Your task to perform on an android device: What's on my calendar tomorrow? Image 0: 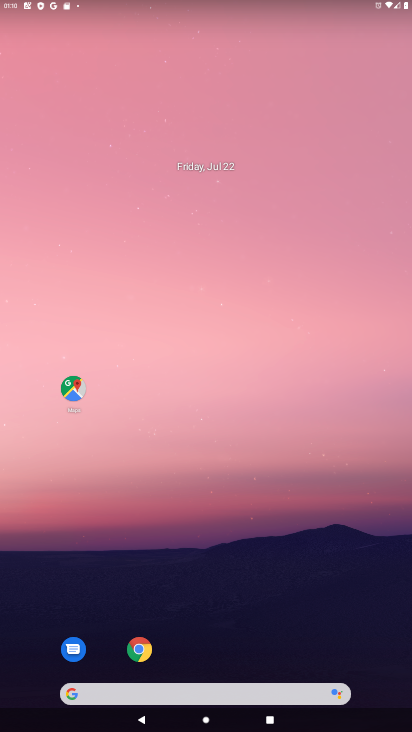
Step 0: drag from (249, 592) to (149, 17)
Your task to perform on an android device: What's on my calendar tomorrow? Image 1: 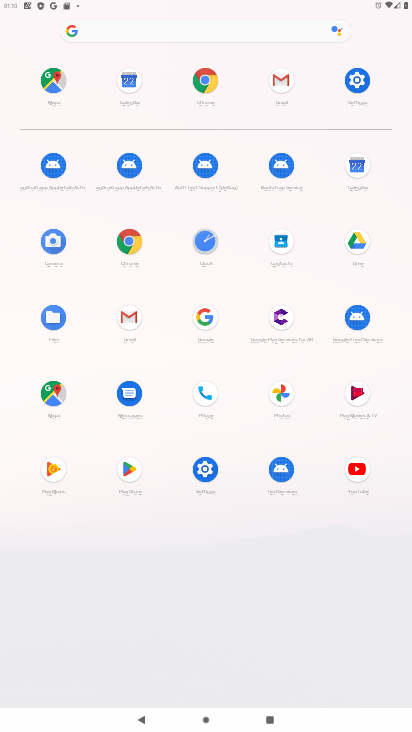
Step 1: click (370, 166)
Your task to perform on an android device: What's on my calendar tomorrow? Image 2: 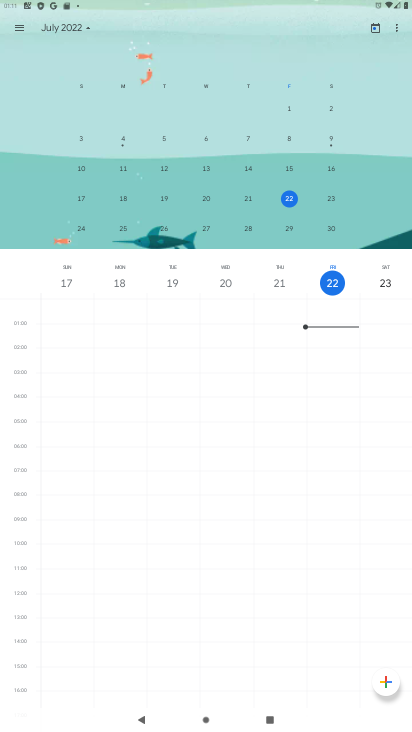
Step 2: click (336, 194)
Your task to perform on an android device: What's on my calendar tomorrow? Image 3: 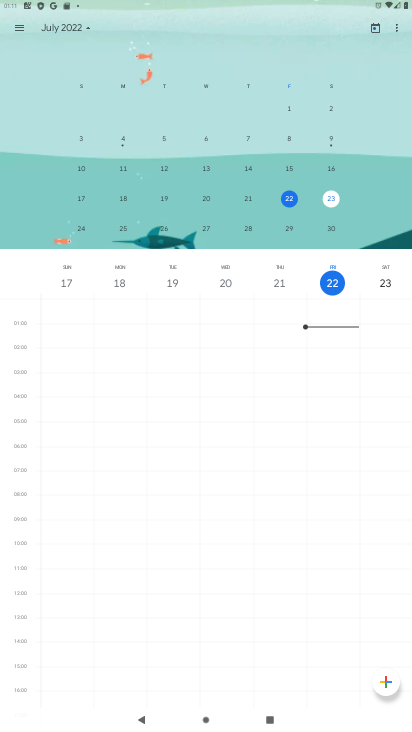
Step 3: click (391, 287)
Your task to perform on an android device: What's on my calendar tomorrow? Image 4: 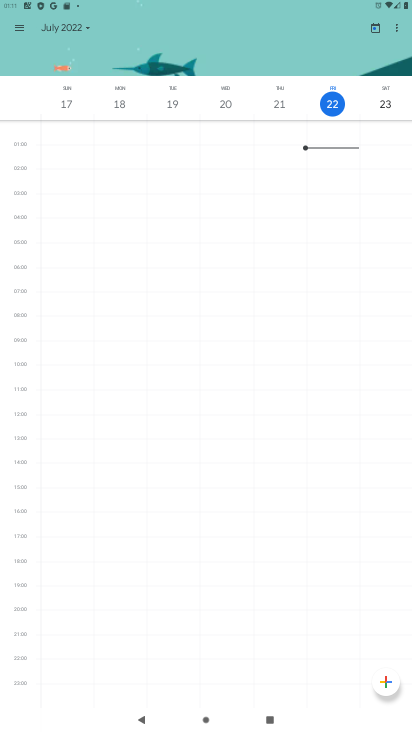
Step 4: click (383, 104)
Your task to perform on an android device: What's on my calendar tomorrow? Image 5: 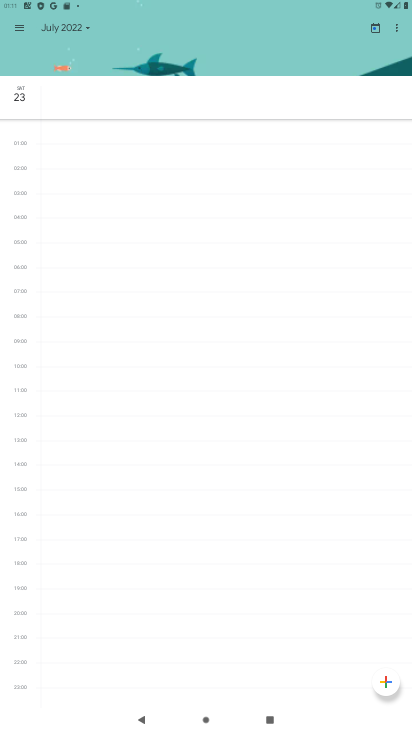
Step 5: task complete